Your task to perform on an android device: choose inbox layout in the gmail app Image 0: 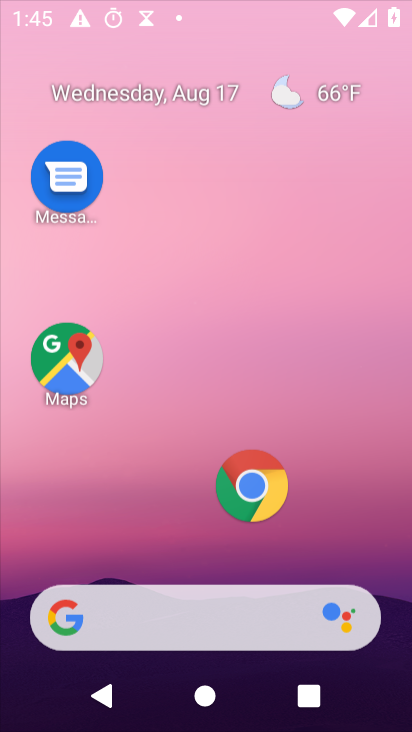
Step 0: press home button
Your task to perform on an android device: choose inbox layout in the gmail app Image 1: 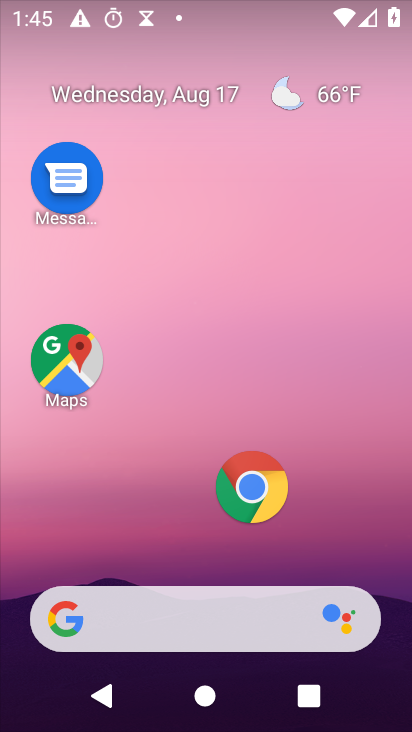
Step 1: drag from (221, 562) to (239, 40)
Your task to perform on an android device: choose inbox layout in the gmail app Image 2: 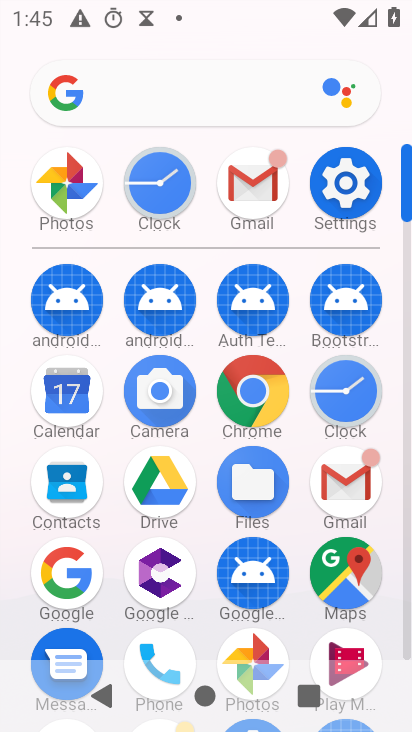
Step 2: click (251, 188)
Your task to perform on an android device: choose inbox layout in the gmail app Image 3: 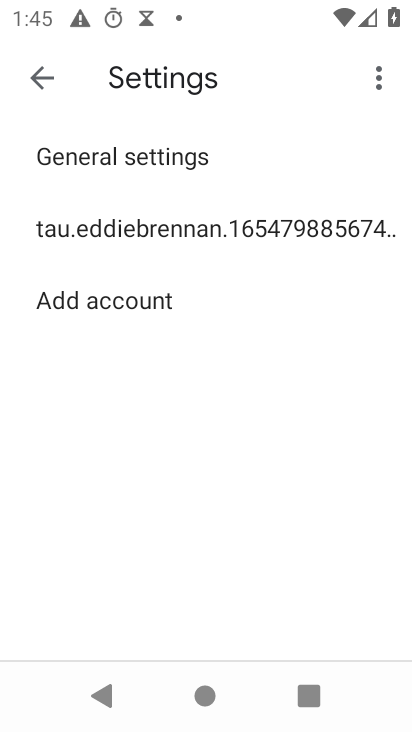
Step 3: click (151, 222)
Your task to perform on an android device: choose inbox layout in the gmail app Image 4: 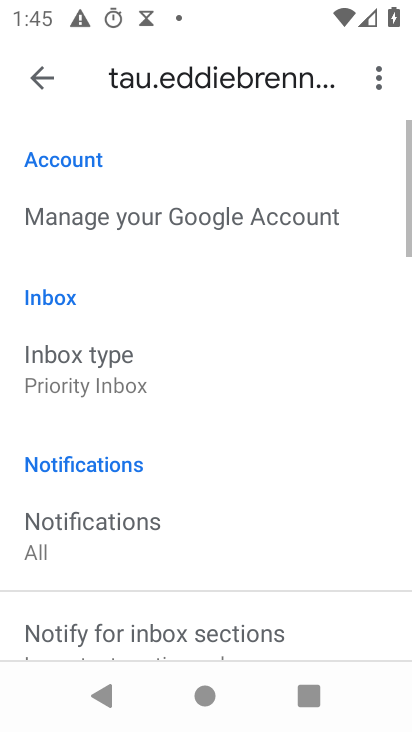
Step 4: click (50, 390)
Your task to perform on an android device: choose inbox layout in the gmail app Image 5: 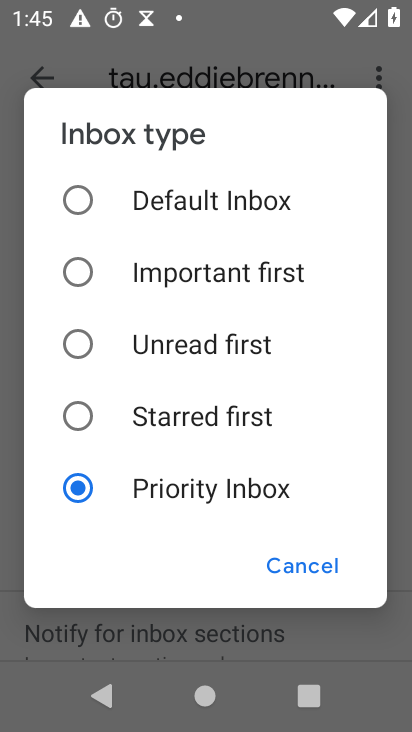
Step 5: click (85, 281)
Your task to perform on an android device: choose inbox layout in the gmail app Image 6: 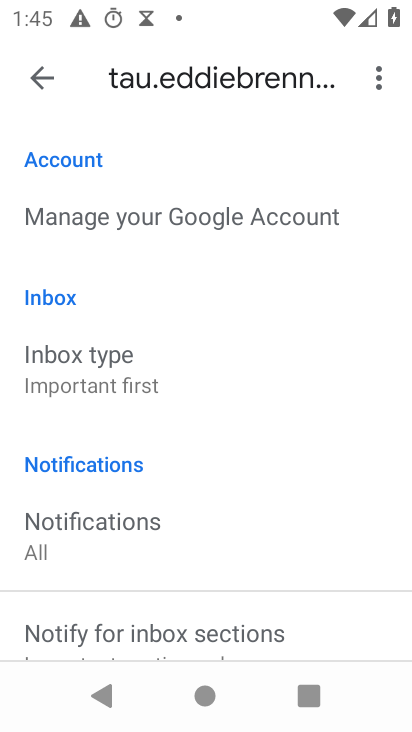
Step 6: task complete